Your task to perform on an android device: turn off notifications in google photos Image 0: 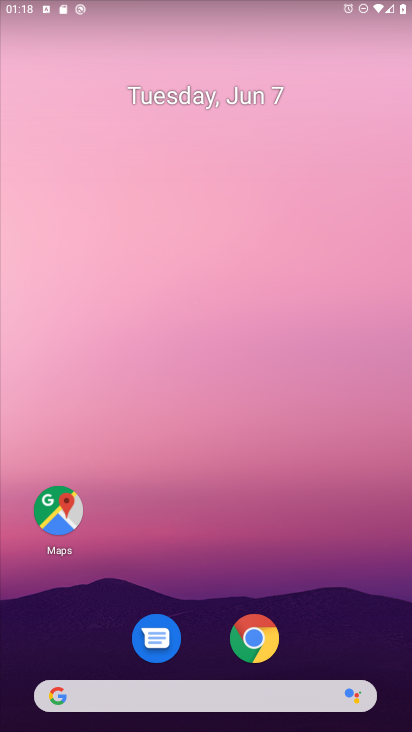
Step 0: drag from (206, 707) to (247, 146)
Your task to perform on an android device: turn off notifications in google photos Image 1: 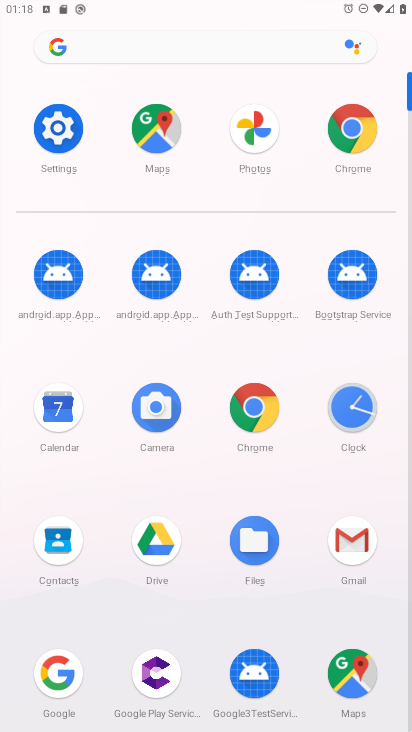
Step 1: drag from (202, 615) to (213, 445)
Your task to perform on an android device: turn off notifications in google photos Image 2: 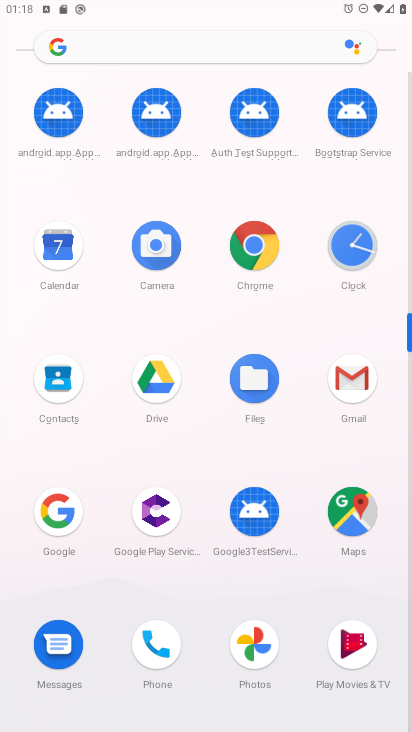
Step 2: click (256, 655)
Your task to perform on an android device: turn off notifications in google photos Image 3: 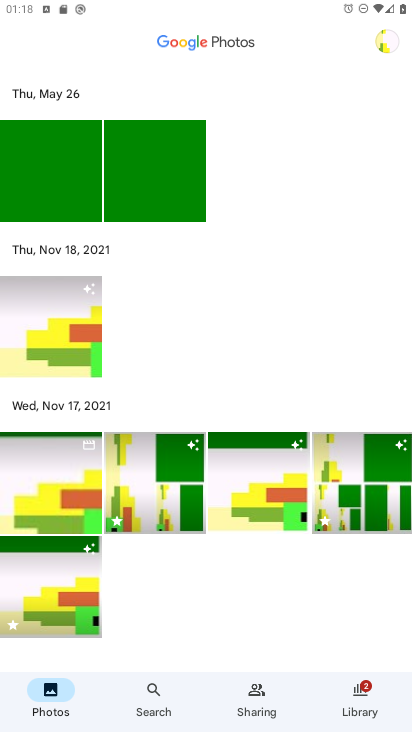
Step 3: click (375, 49)
Your task to perform on an android device: turn off notifications in google photos Image 4: 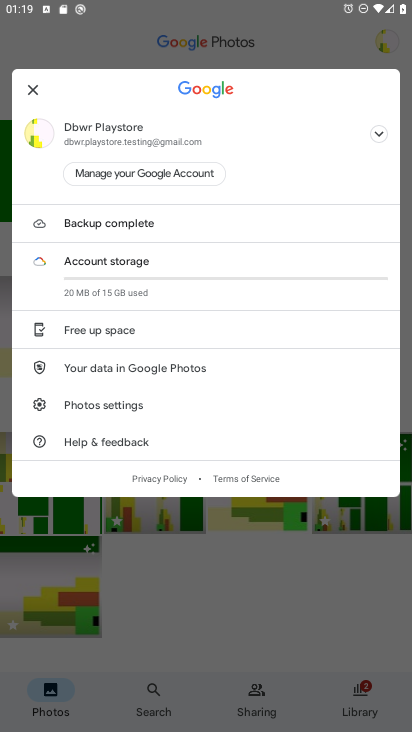
Step 4: click (126, 400)
Your task to perform on an android device: turn off notifications in google photos Image 5: 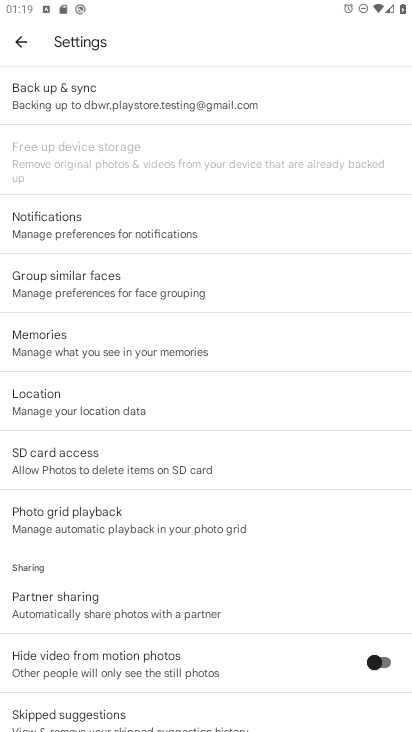
Step 5: click (102, 237)
Your task to perform on an android device: turn off notifications in google photos Image 6: 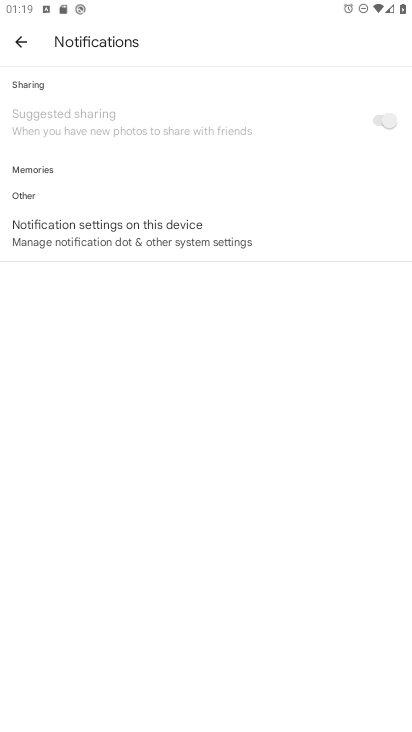
Step 6: click (97, 233)
Your task to perform on an android device: turn off notifications in google photos Image 7: 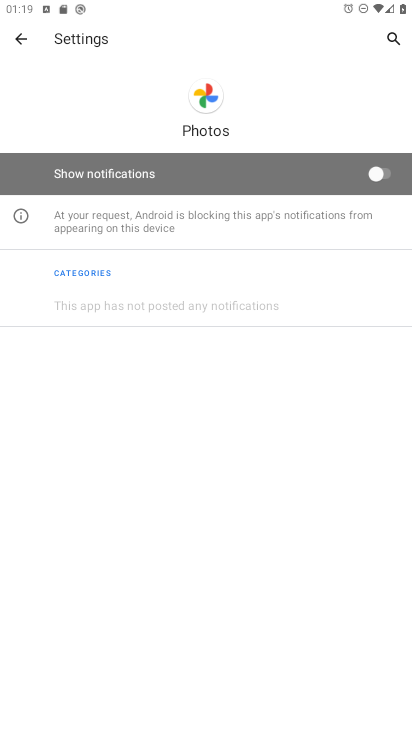
Step 7: click (380, 175)
Your task to perform on an android device: turn off notifications in google photos Image 8: 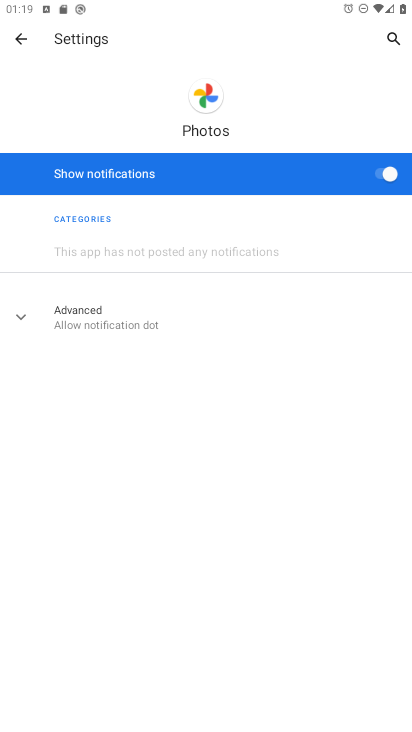
Step 8: click (378, 177)
Your task to perform on an android device: turn off notifications in google photos Image 9: 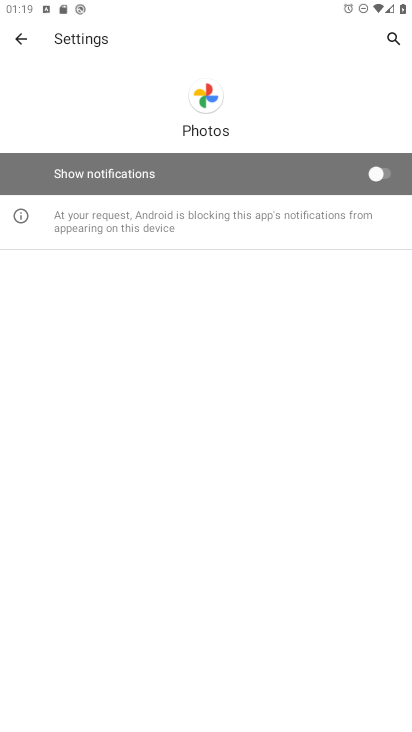
Step 9: task complete